Your task to perform on an android device: see creations saved in the google photos Image 0: 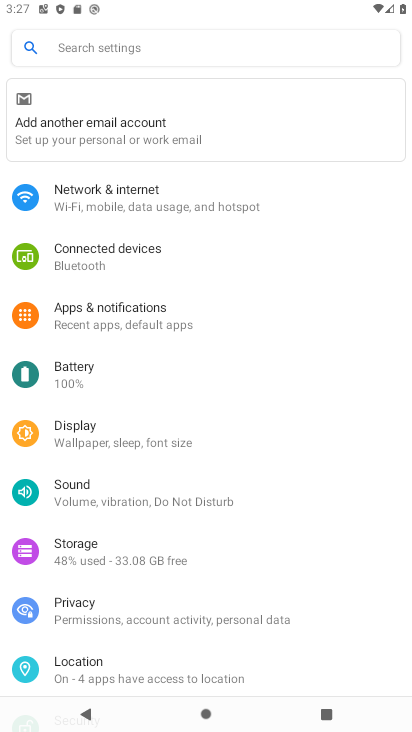
Step 0: press home button
Your task to perform on an android device: see creations saved in the google photos Image 1: 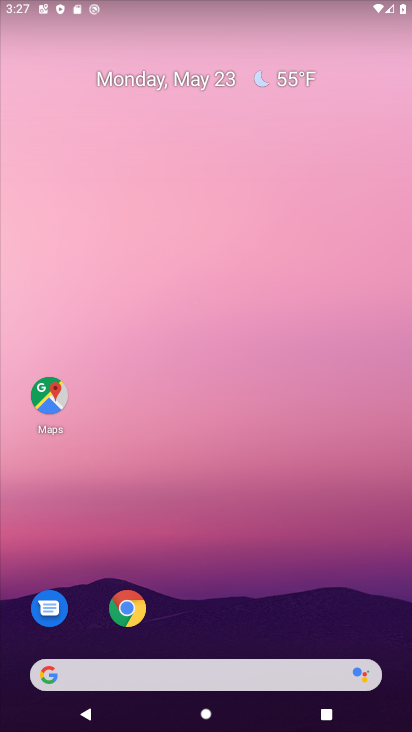
Step 1: drag from (280, 501) to (175, 122)
Your task to perform on an android device: see creations saved in the google photos Image 2: 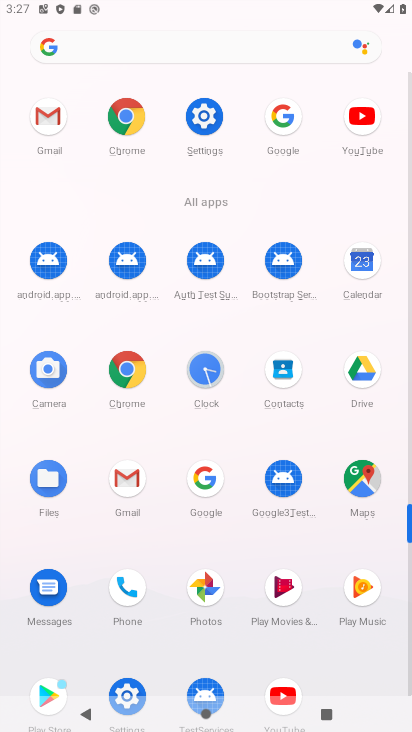
Step 2: click (205, 575)
Your task to perform on an android device: see creations saved in the google photos Image 3: 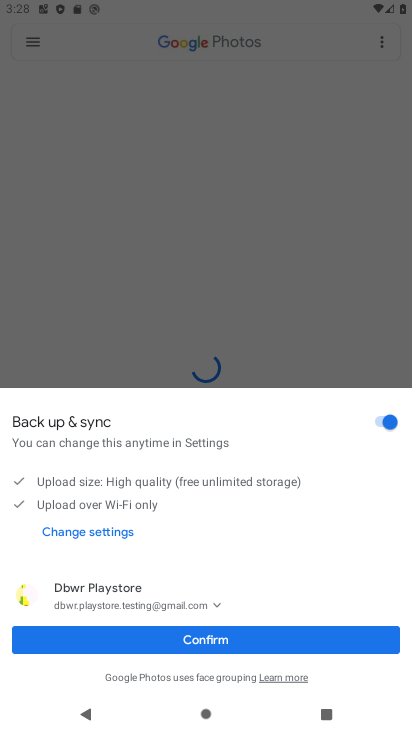
Step 3: click (324, 642)
Your task to perform on an android device: see creations saved in the google photos Image 4: 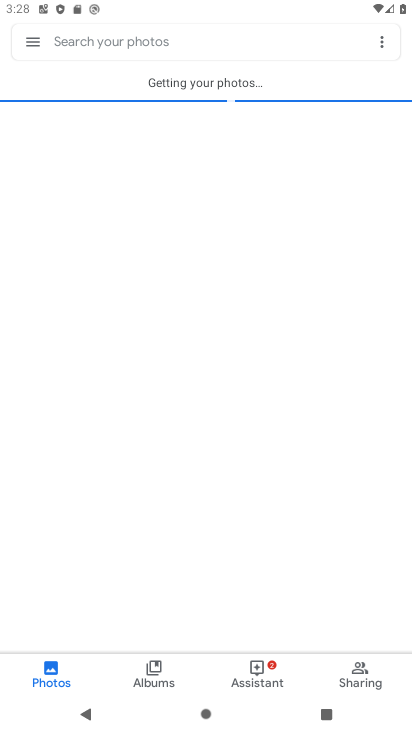
Step 4: click (114, 35)
Your task to perform on an android device: see creations saved in the google photos Image 5: 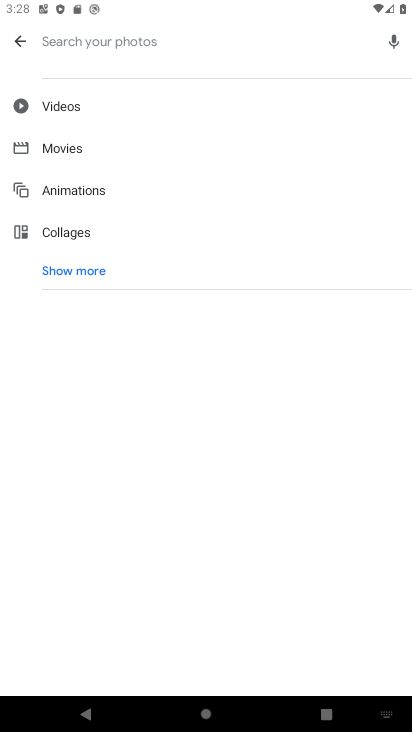
Step 5: type "creations"
Your task to perform on an android device: see creations saved in the google photos Image 6: 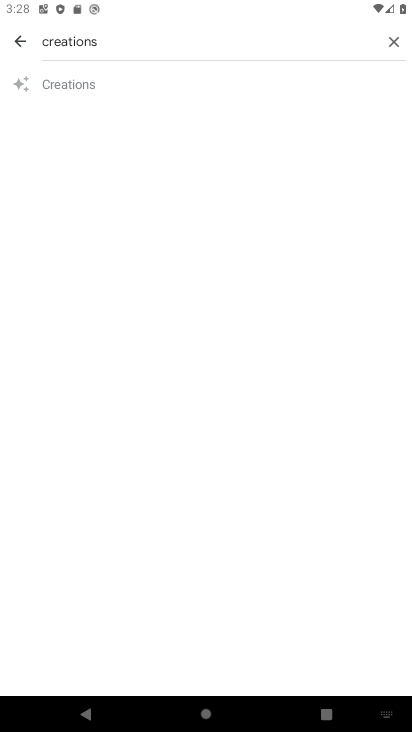
Step 6: click (57, 85)
Your task to perform on an android device: see creations saved in the google photos Image 7: 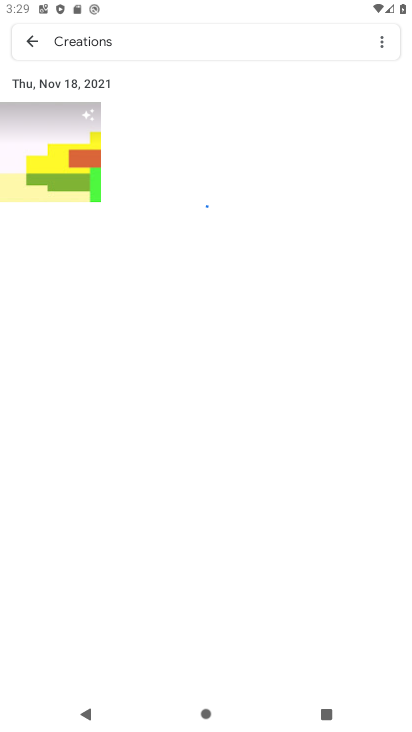
Step 7: task complete